Your task to perform on an android device: remove spam from my inbox in the gmail app Image 0: 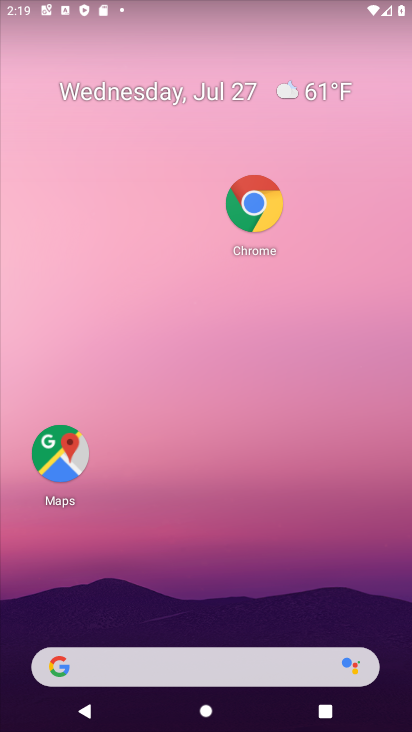
Step 0: drag from (194, 594) to (255, 98)
Your task to perform on an android device: remove spam from my inbox in the gmail app Image 1: 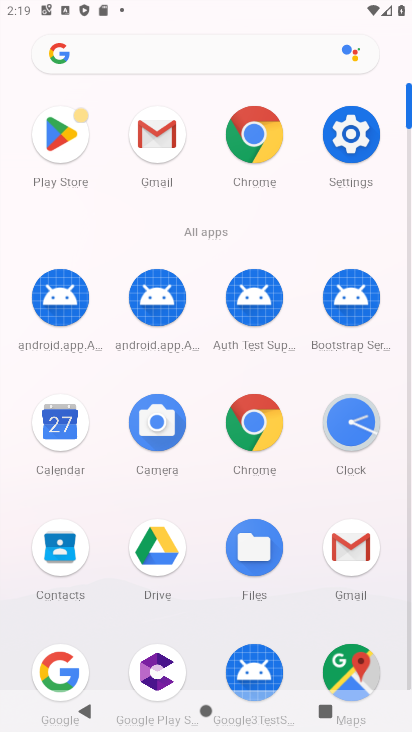
Step 1: click (151, 157)
Your task to perform on an android device: remove spam from my inbox in the gmail app Image 2: 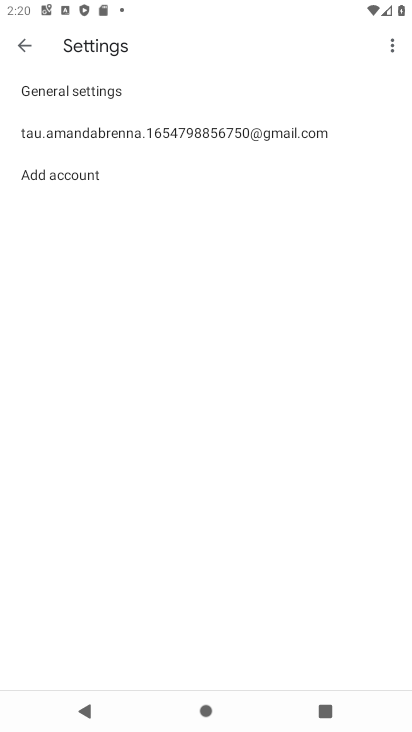
Step 2: click (18, 44)
Your task to perform on an android device: remove spam from my inbox in the gmail app Image 3: 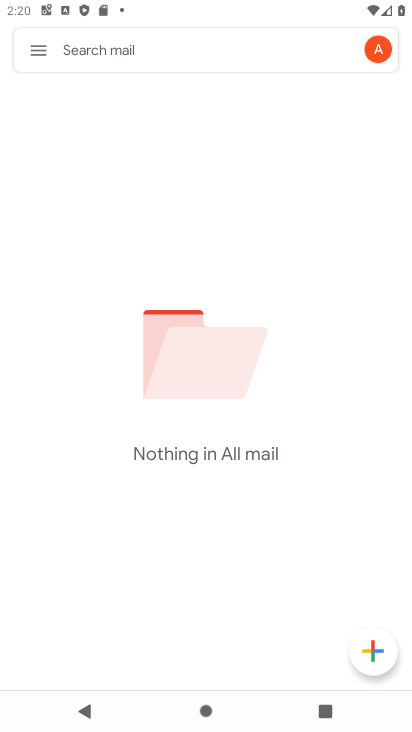
Step 3: click (40, 55)
Your task to perform on an android device: remove spam from my inbox in the gmail app Image 4: 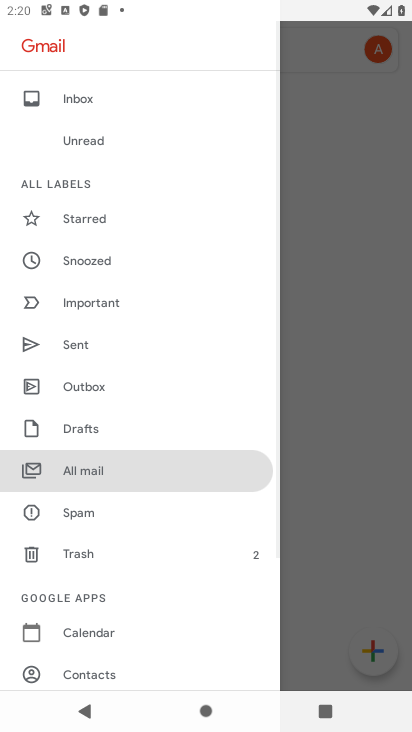
Step 4: click (110, 506)
Your task to perform on an android device: remove spam from my inbox in the gmail app Image 5: 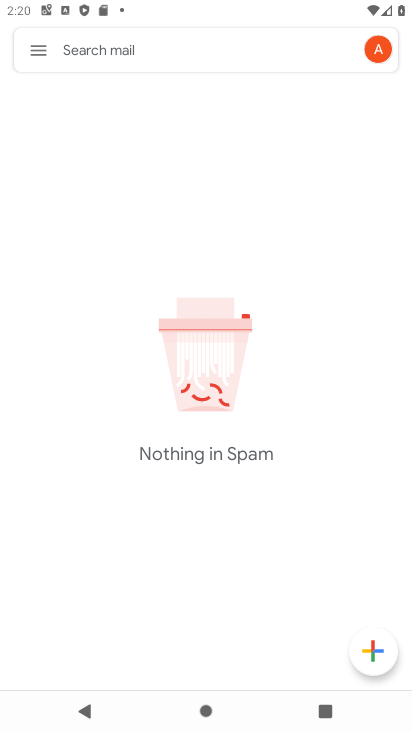
Step 5: task complete